Your task to perform on an android device: turn off notifications in google photos Image 0: 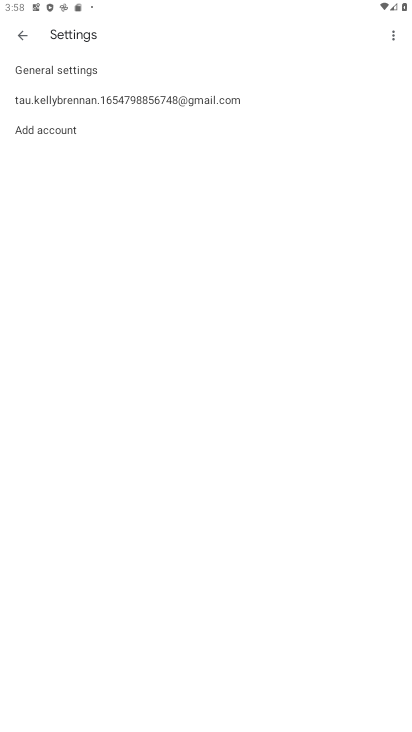
Step 0: press home button
Your task to perform on an android device: turn off notifications in google photos Image 1: 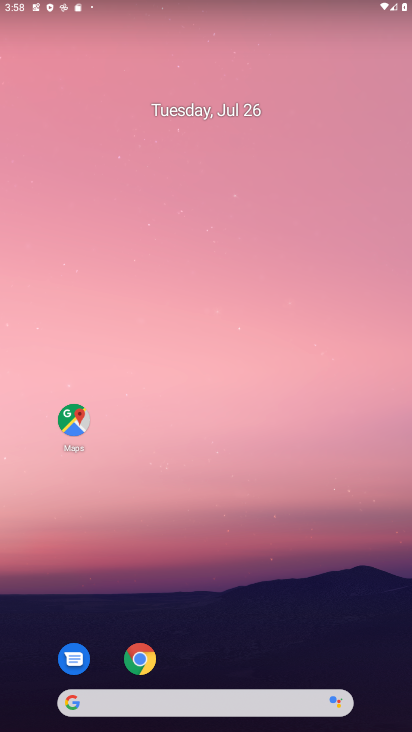
Step 1: drag from (242, 654) to (293, 211)
Your task to perform on an android device: turn off notifications in google photos Image 2: 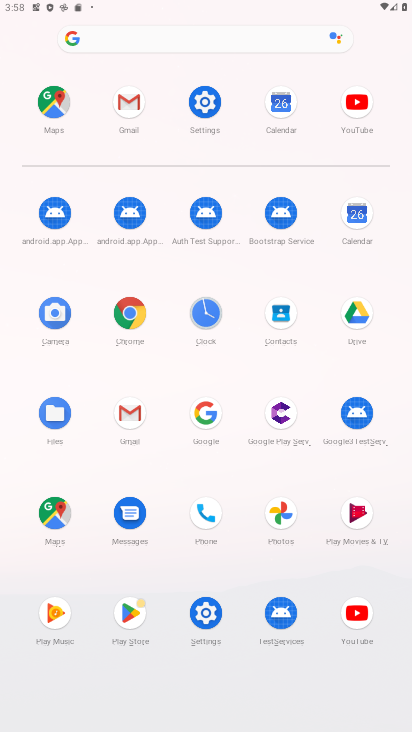
Step 2: click (280, 505)
Your task to perform on an android device: turn off notifications in google photos Image 3: 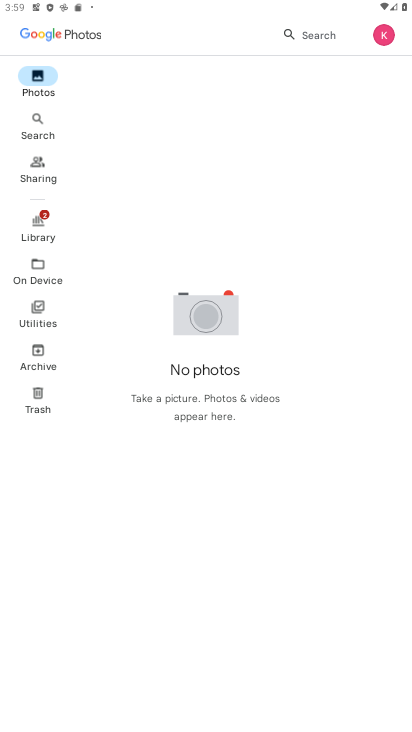
Step 3: click (387, 30)
Your task to perform on an android device: turn off notifications in google photos Image 4: 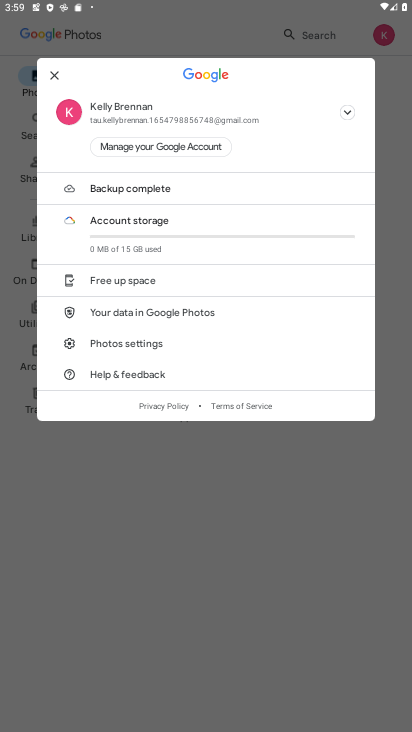
Step 4: click (155, 350)
Your task to perform on an android device: turn off notifications in google photos Image 5: 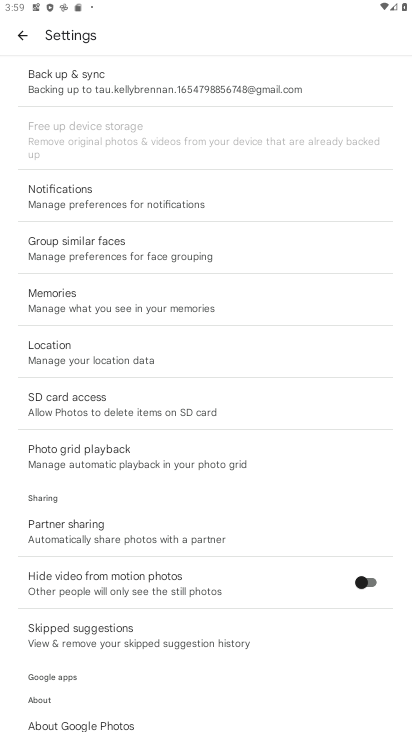
Step 5: click (150, 203)
Your task to perform on an android device: turn off notifications in google photos Image 6: 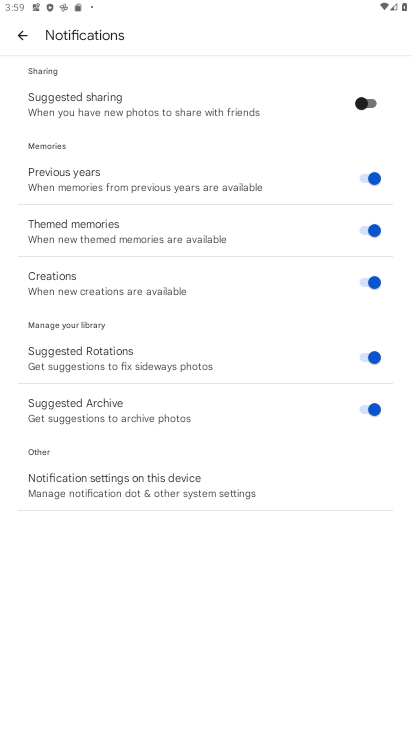
Step 6: click (155, 498)
Your task to perform on an android device: turn off notifications in google photos Image 7: 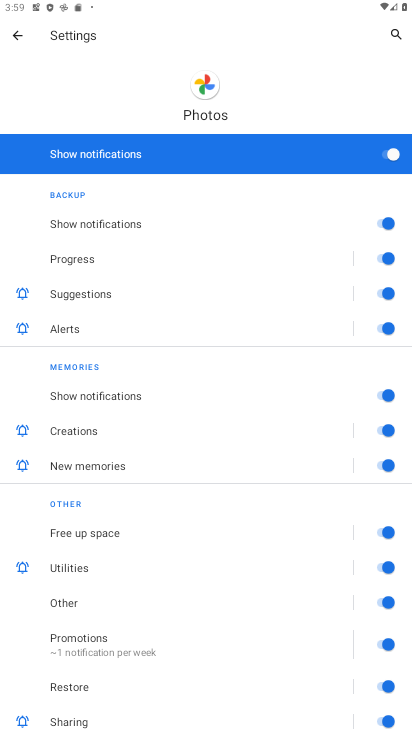
Step 7: click (376, 140)
Your task to perform on an android device: turn off notifications in google photos Image 8: 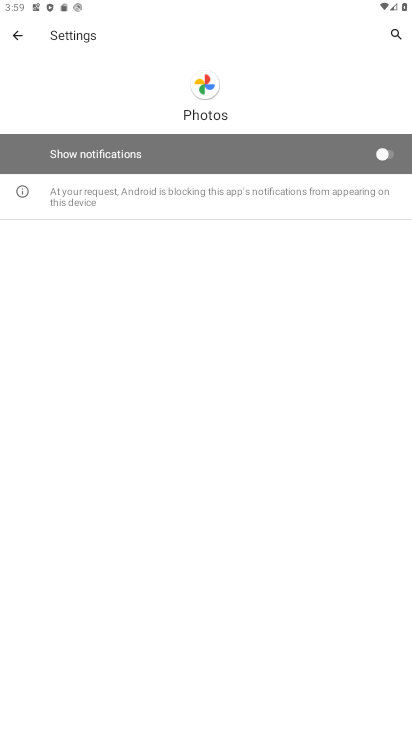
Step 8: task complete